Your task to perform on an android device: Open calendar and show me the third week of next month Image 0: 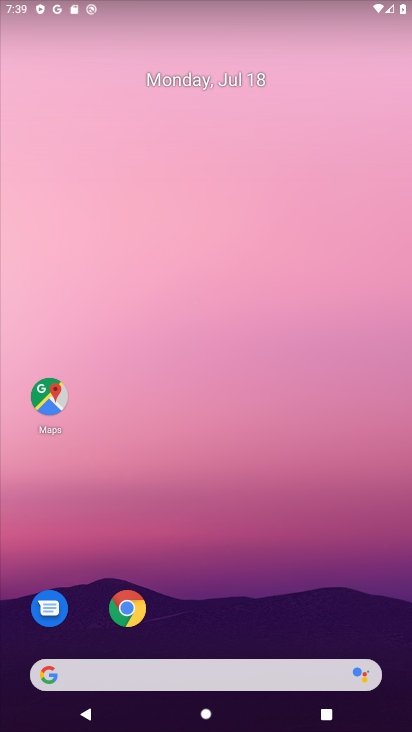
Step 0: drag from (236, 638) to (238, 168)
Your task to perform on an android device: Open calendar and show me the third week of next month Image 1: 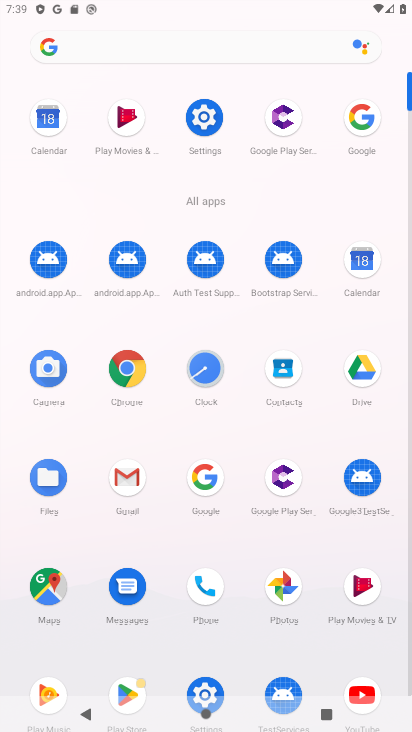
Step 1: click (359, 267)
Your task to perform on an android device: Open calendar and show me the third week of next month Image 2: 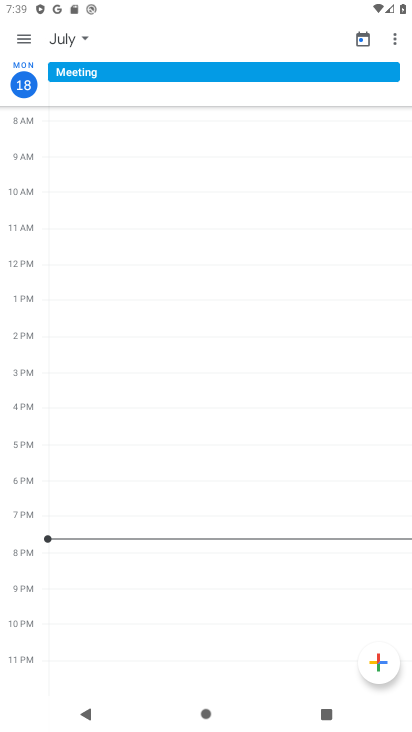
Step 2: click (67, 37)
Your task to perform on an android device: Open calendar and show me the third week of next month Image 3: 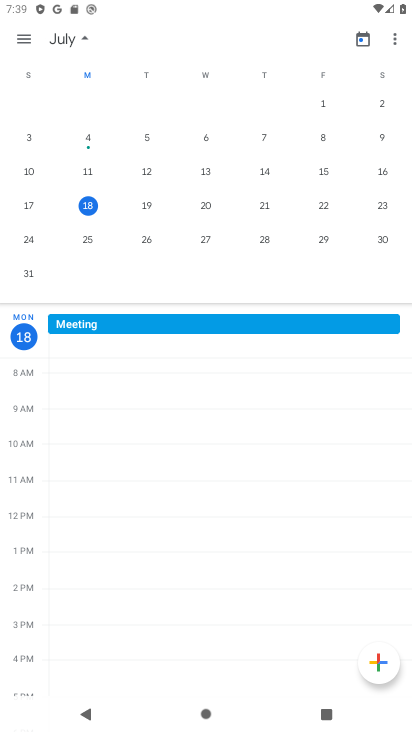
Step 3: drag from (369, 245) to (9, 181)
Your task to perform on an android device: Open calendar and show me the third week of next month Image 4: 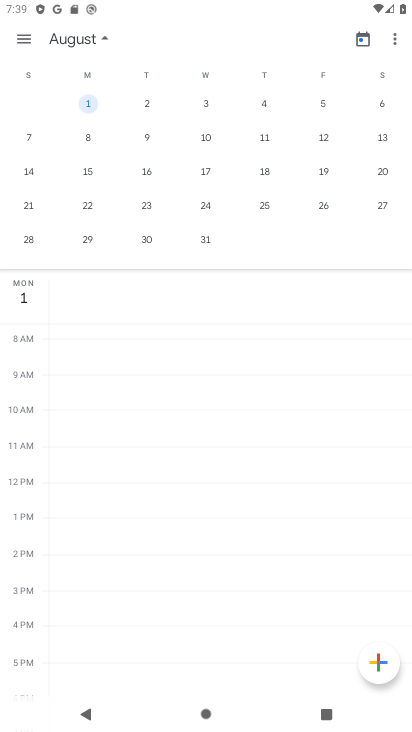
Step 4: click (153, 169)
Your task to perform on an android device: Open calendar and show me the third week of next month Image 5: 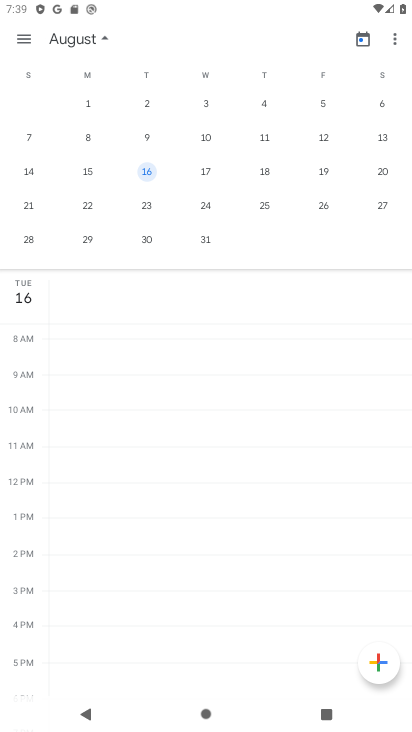
Step 5: click (26, 38)
Your task to perform on an android device: Open calendar and show me the third week of next month Image 6: 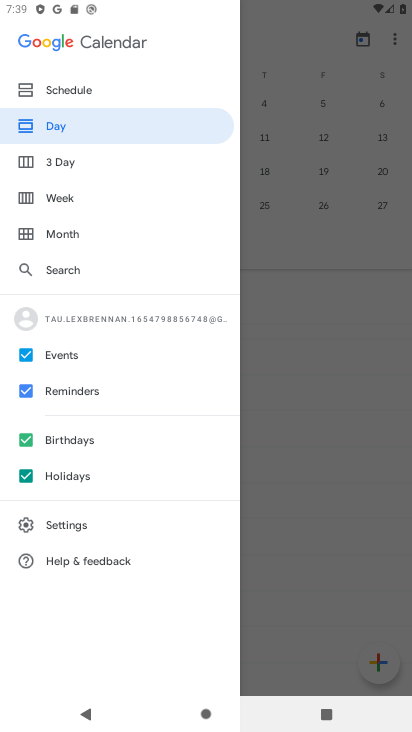
Step 6: click (79, 87)
Your task to perform on an android device: Open calendar and show me the third week of next month Image 7: 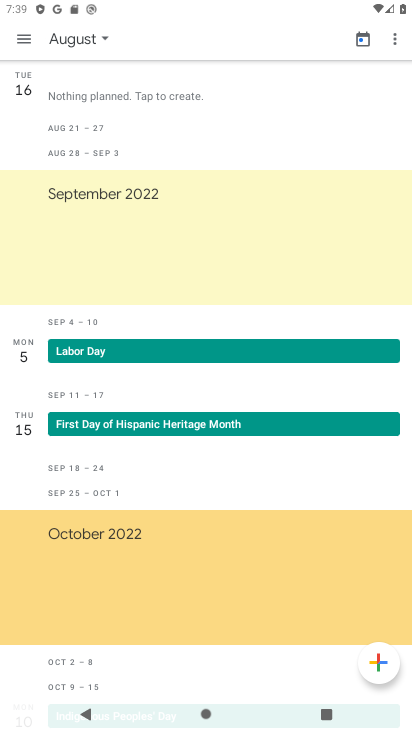
Step 7: task complete